Your task to perform on an android device: Open calendar and show me the fourth week of next month Image 0: 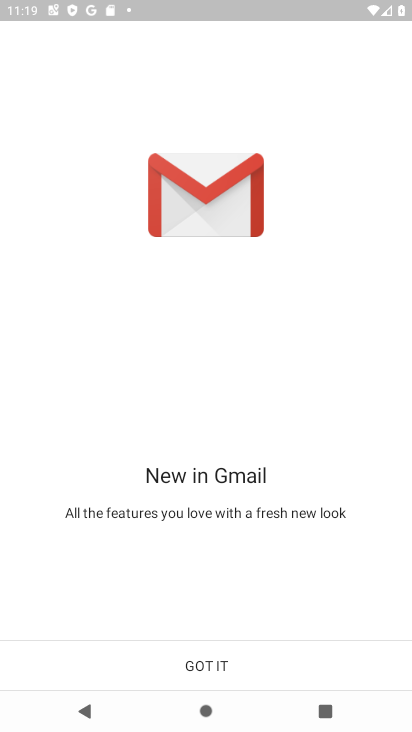
Step 0: press home button
Your task to perform on an android device: Open calendar and show me the fourth week of next month Image 1: 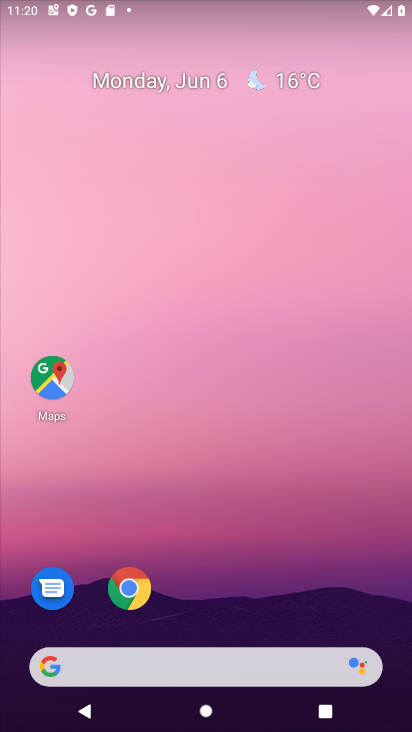
Step 1: drag from (345, 642) to (399, 266)
Your task to perform on an android device: Open calendar and show me the fourth week of next month Image 2: 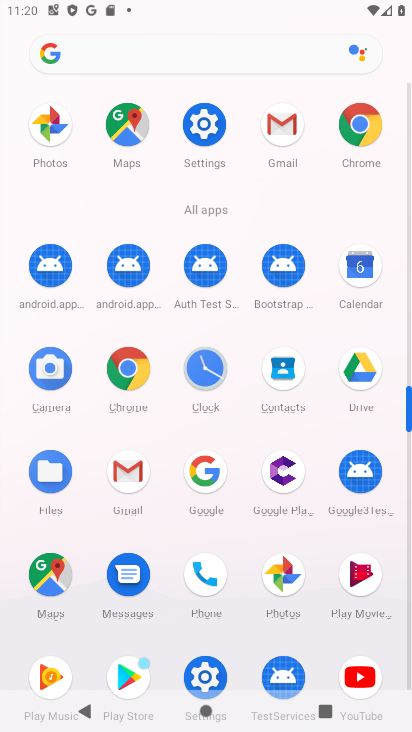
Step 2: click (364, 250)
Your task to perform on an android device: Open calendar and show me the fourth week of next month Image 3: 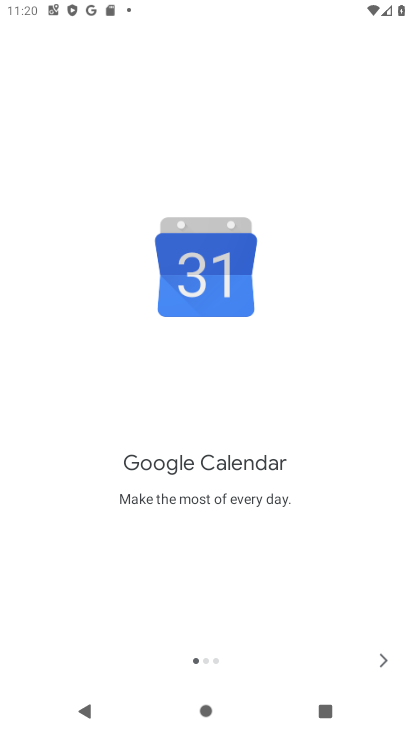
Step 3: click (387, 657)
Your task to perform on an android device: Open calendar and show me the fourth week of next month Image 4: 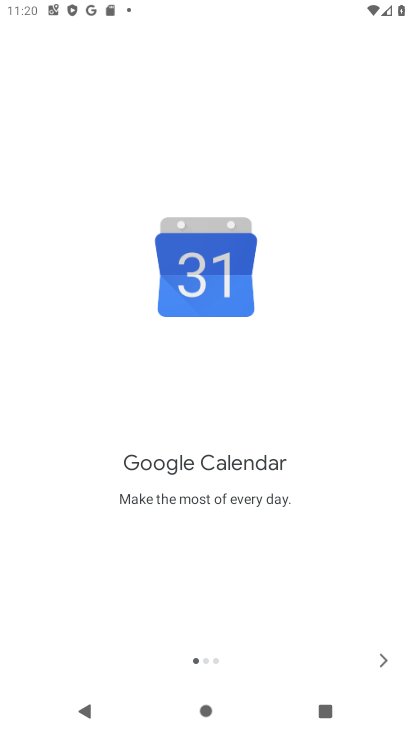
Step 4: click (387, 657)
Your task to perform on an android device: Open calendar and show me the fourth week of next month Image 5: 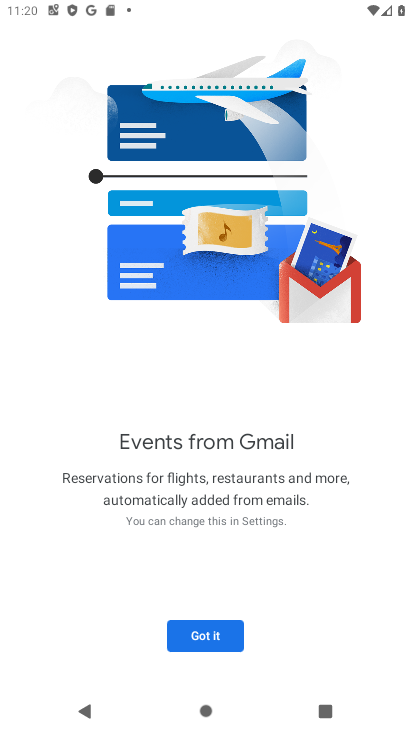
Step 5: click (208, 638)
Your task to perform on an android device: Open calendar and show me the fourth week of next month Image 6: 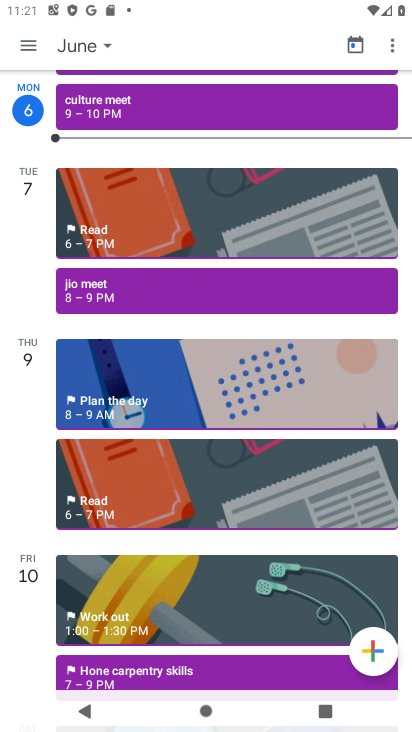
Step 6: click (68, 45)
Your task to perform on an android device: Open calendar and show me the fourth week of next month Image 7: 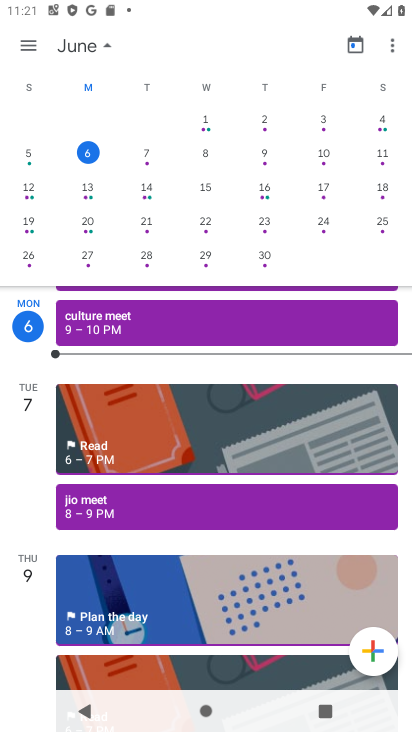
Step 7: click (25, 42)
Your task to perform on an android device: Open calendar and show me the fourth week of next month Image 8: 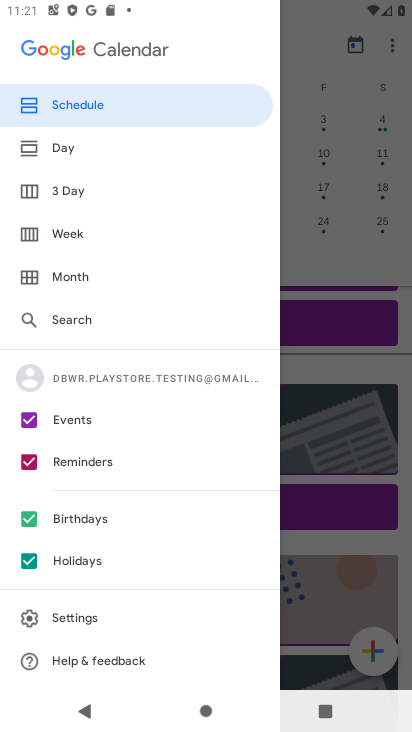
Step 8: click (51, 273)
Your task to perform on an android device: Open calendar and show me the fourth week of next month Image 9: 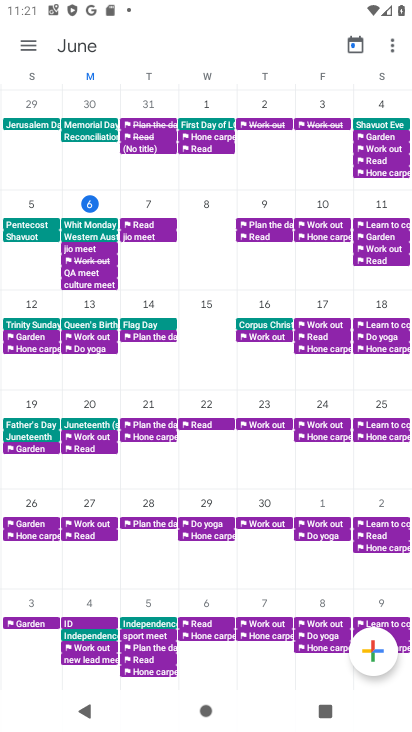
Step 9: task complete